Your task to perform on an android device: turn on javascript in the chrome app Image 0: 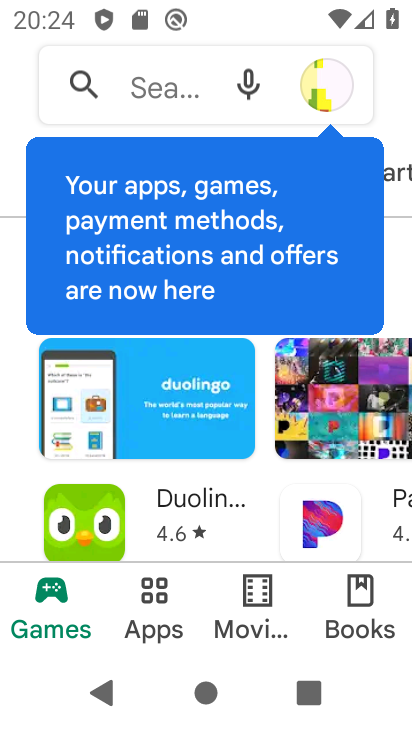
Step 0: press home button
Your task to perform on an android device: turn on javascript in the chrome app Image 1: 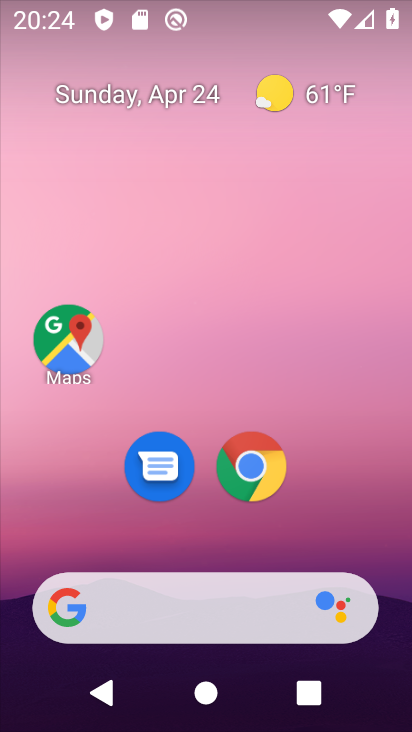
Step 1: click (262, 459)
Your task to perform on an android device: turn on javascript in the chrome app Image 2: 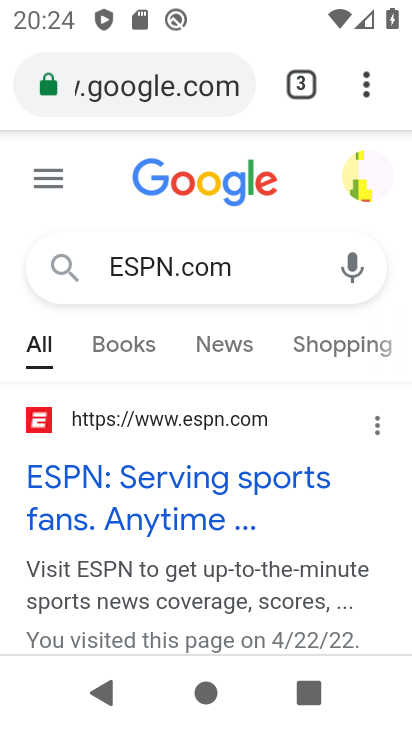
Step 2: click (365, 89)
Your task to perform on an android device: turn on javascript in the chrome app Image 3: 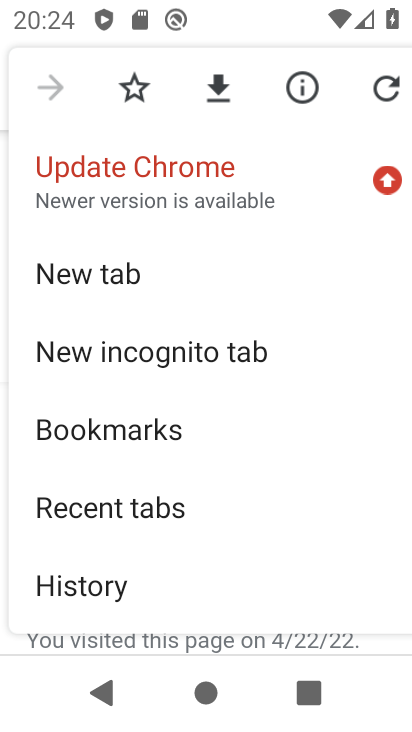
Step 3: drag from (138, 506) to (244, 65)
Your task to perform on an android device: turn on javascript in the chrome app Image 4: 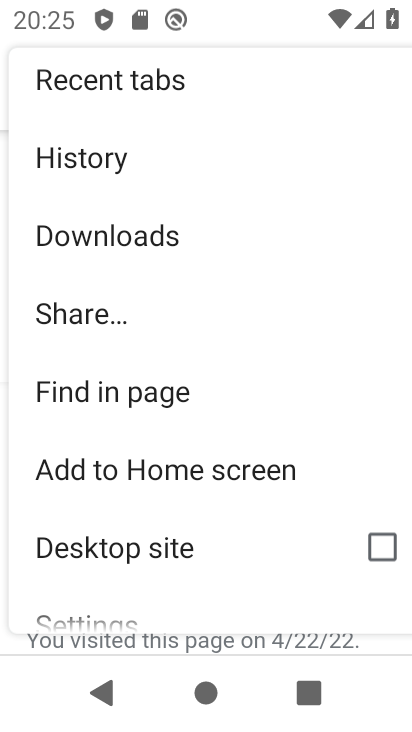
Step 4: drag from (145, 555) to (226, 131)
Your task to perform on an android device: turn on javascript in the chrome app Image 5: 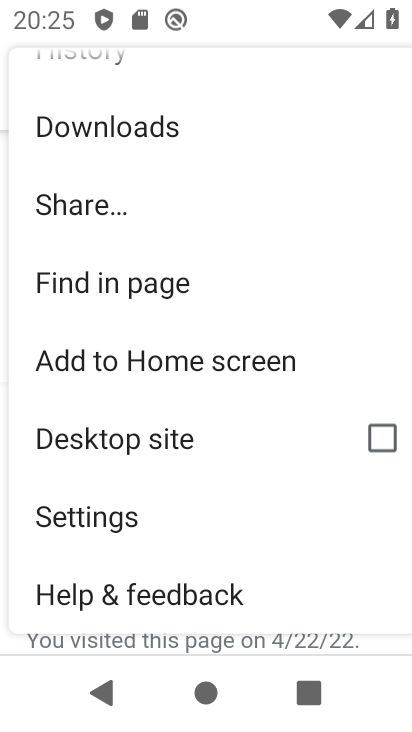
Step 5: click (95, 523)
Your task to perform on an android device: turn on javascript in the chrome app Image 6: 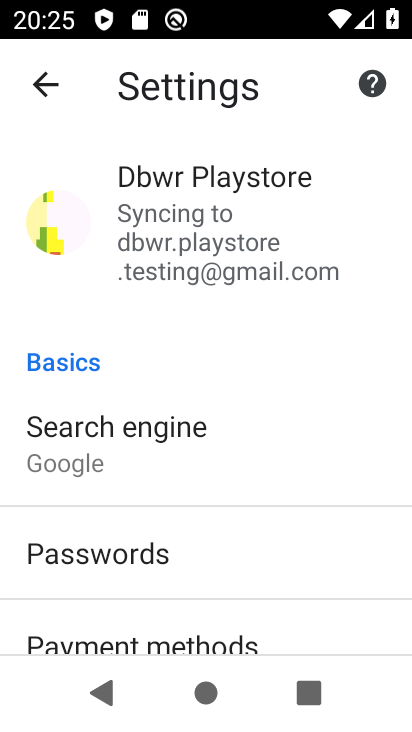
Step 6: drag from (110, 570) to (191, 178)
Your task to perform on an android device: turn on javascript in the chrome app Image 7: 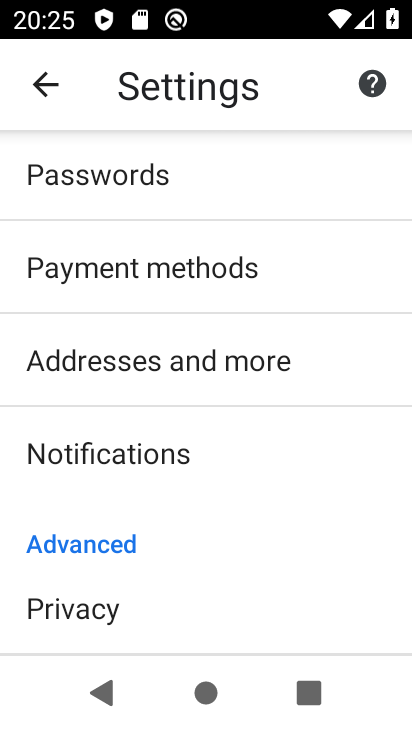
Step 7: drag from (129, 551) to (214, 190)
Your task to perform on an android device: turn on javascript in the chrome app Image 8: 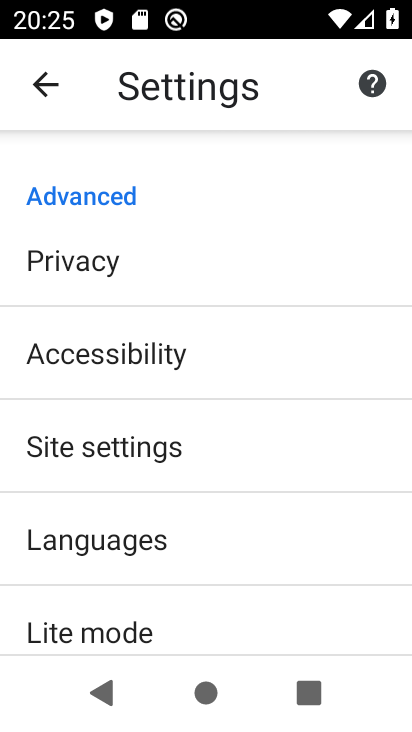
Step 8: click (163, 457)
Your task to perform on an android device: turn on javascript in the chrome app Image 9: 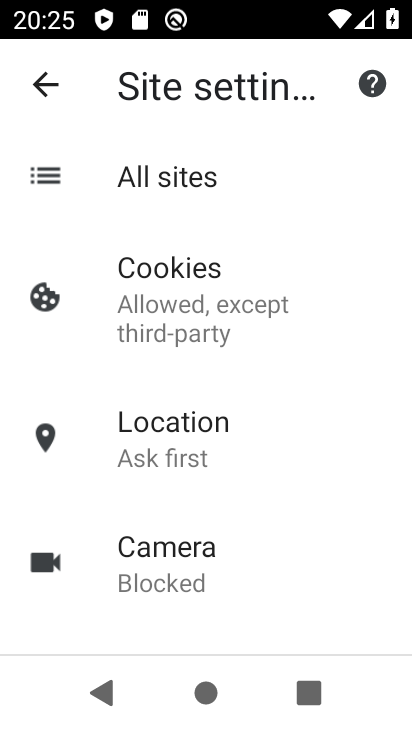
Step 9: drag from (158, 462) to (242, 140)
Your task to perform on an android device: turn on javascript in the chrome app Image 10: 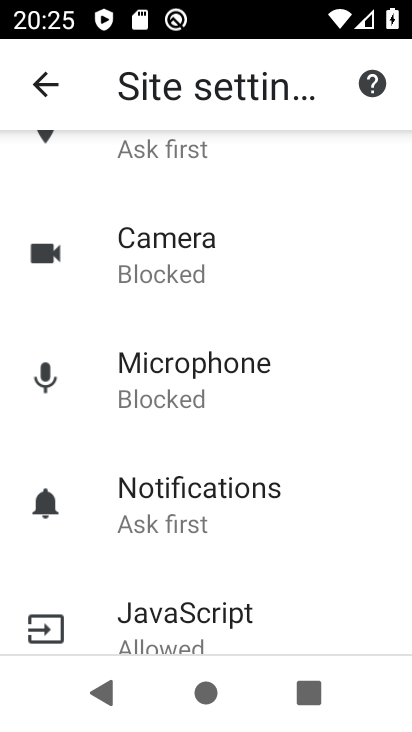
Step 10: drag from (175, 504) to (215, 338)
Your task to perform on an android device: turn on javascript in the chrome app Image 11: 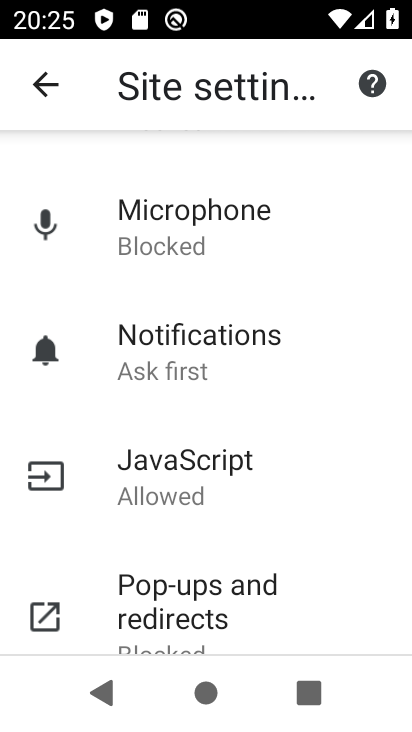
Step 11: click (165, 470)
Your task to perform on an android device: turn on javascript in the chrome app Image 12: 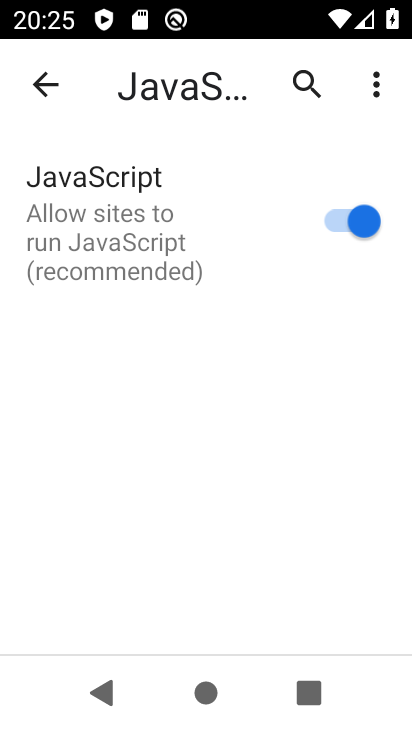
Step 12: task complete